Your task to perform on an android device: change notifications settings Image 0: 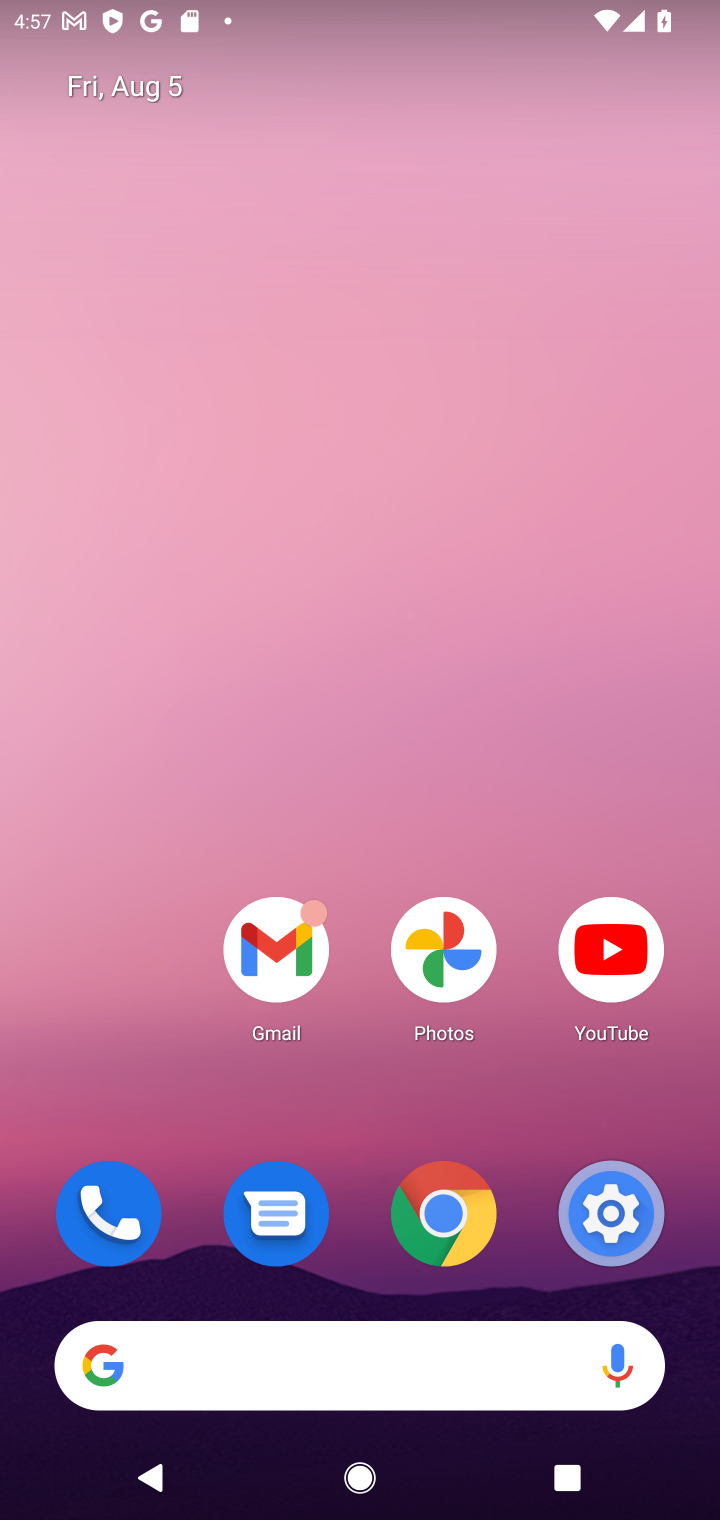
Step 0: click (600, 1192)
Your task to perform on an android device: change notifications settings Image 1: 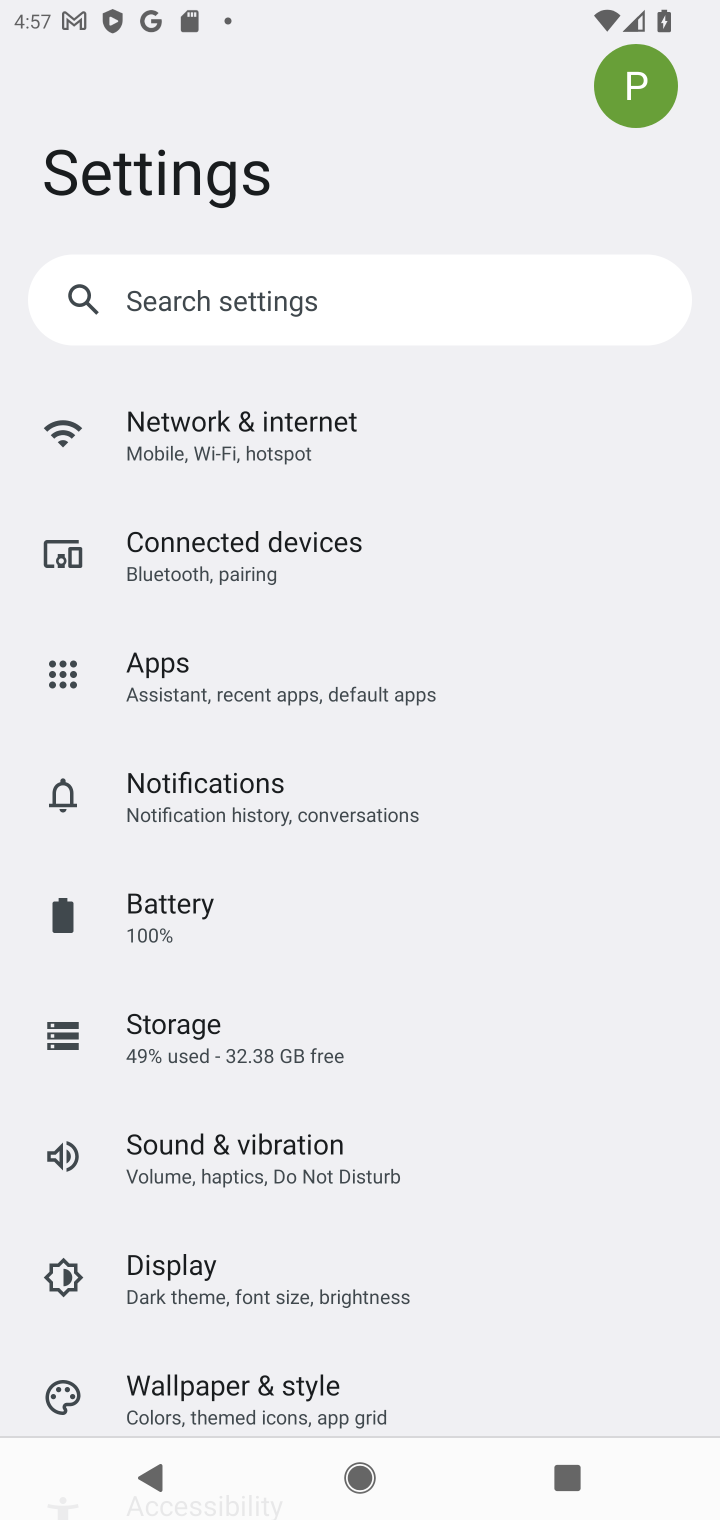
Step 1: task complete